Your task to perform on an android device: View the shopping cart on walmart.com. Image 0: 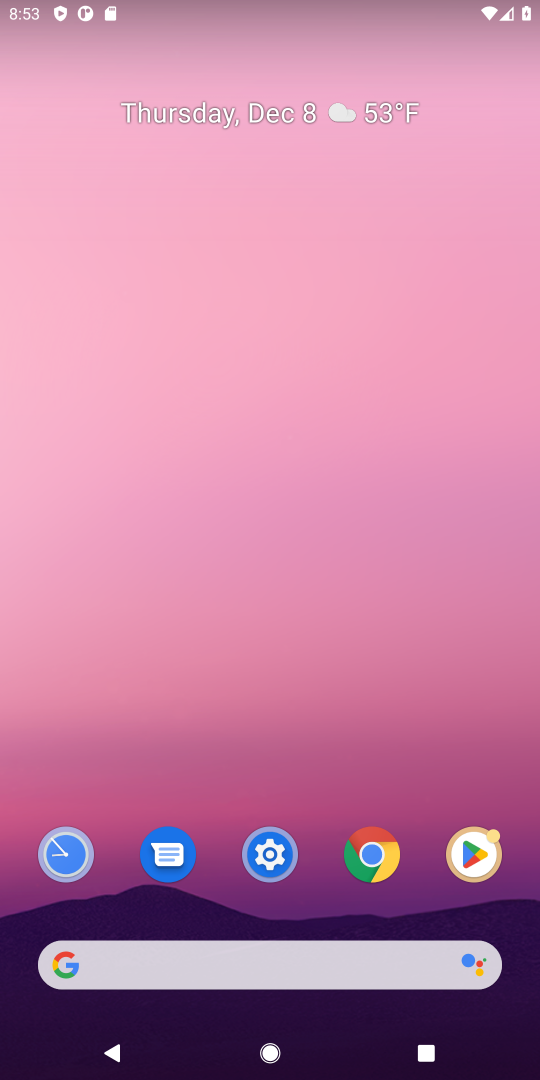
Step 0: press home button
Your task to perform on an android device: View the shopping cart on walmart.com. Image 1: 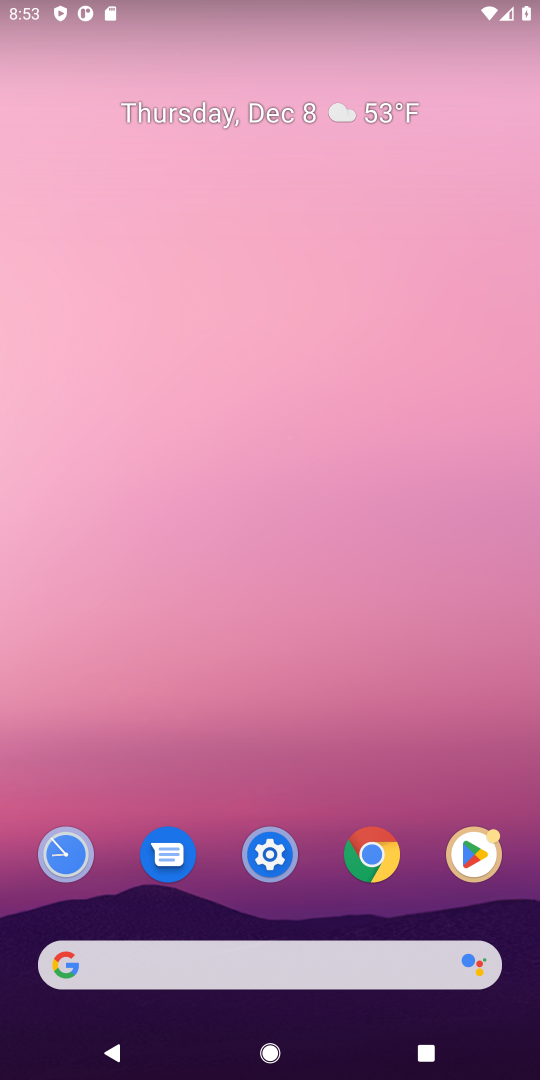
Step 1: click (86, 959)
Your task to perform on an android device: View the shopping cart on walmart.com. Image 2: 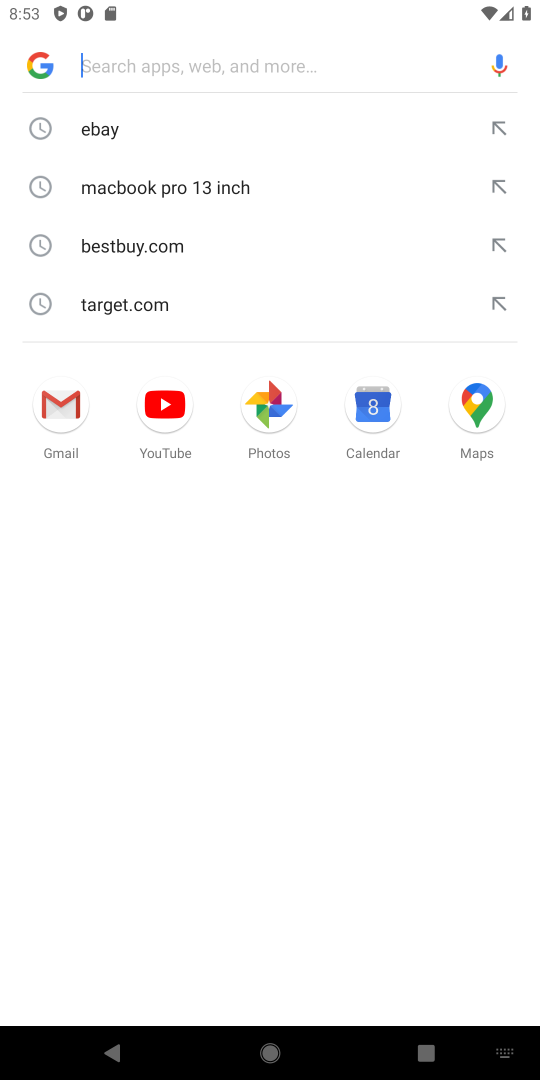
Step 2: type "walmart.com"
Your task to perform on an android device: View the shopping cart on walmart.com. Image 3: 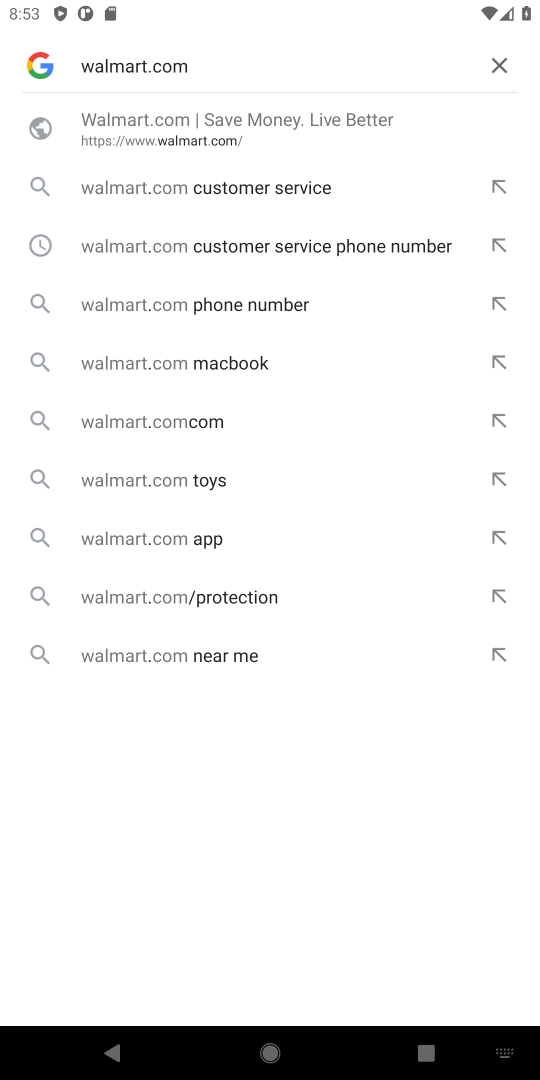
Step 3: press enter
Your task to perform on an android device: View the shopping cart on walmart.com. Image 4: 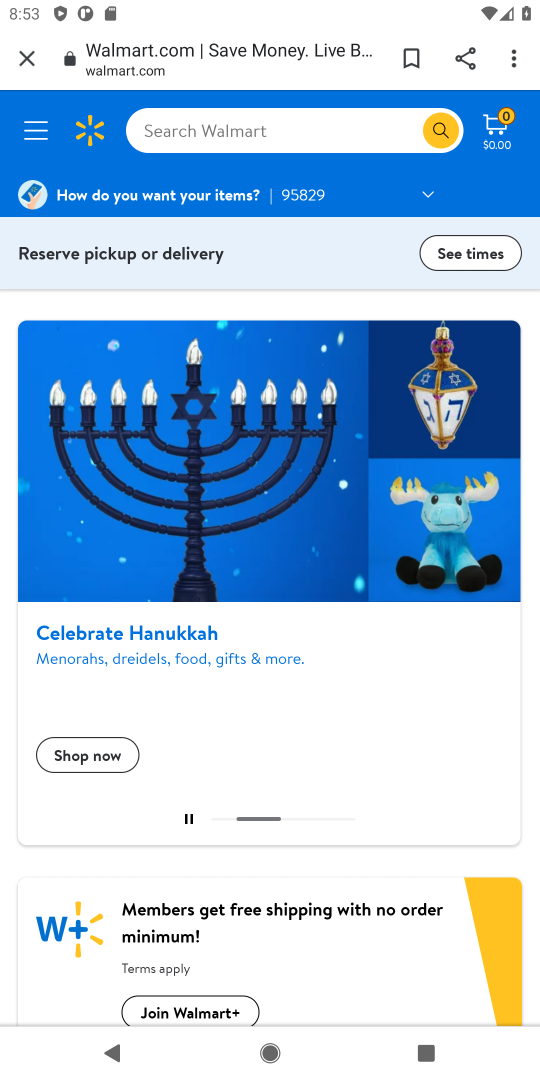
Step 4: click (497, 123)
Your task to perform on an android device: View the shopping cart on walmart.com. Image 5: 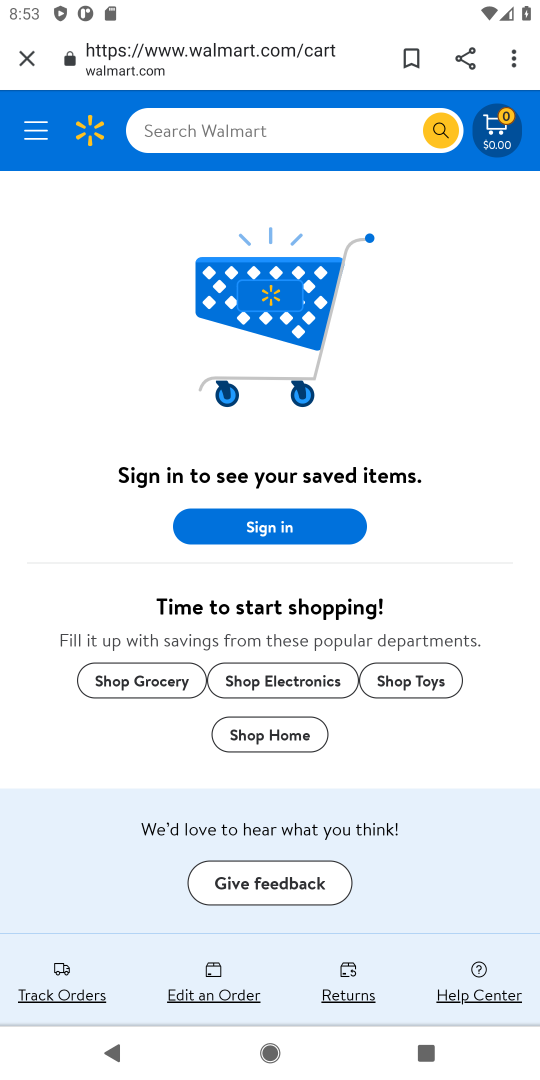
Step 5: task complete